Your task to perform on an android device: Open my contact list Image 0: 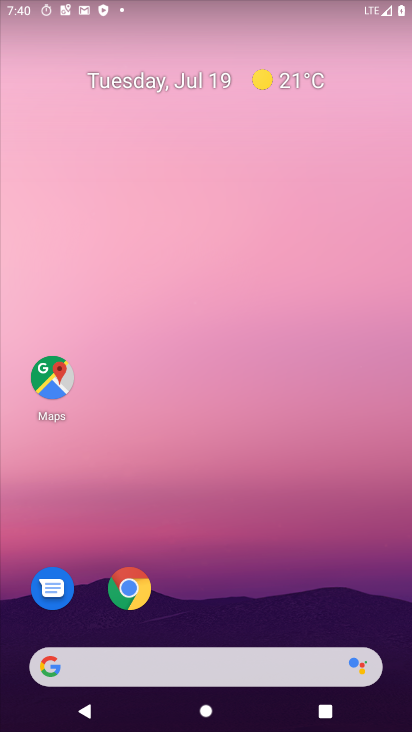
Step 0: drag from (244, 575) to (233, 121)
Your task to perform on an android device: Open my contact list Image 1: 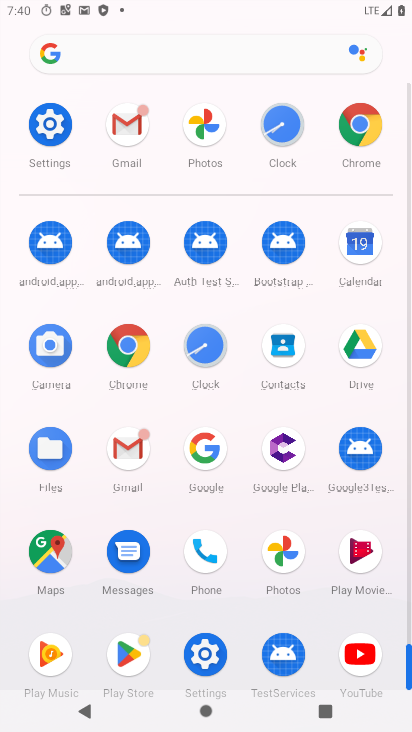
Step 1: click (286, 349)
Your task to perform on an android device: Open my contact list Image 2: 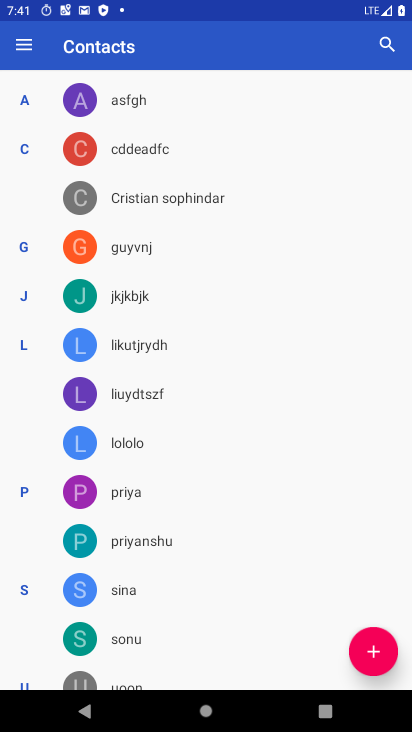
Step 2: task complete